Your task to perform on an android device: Search for hotels in Miami Image 0: 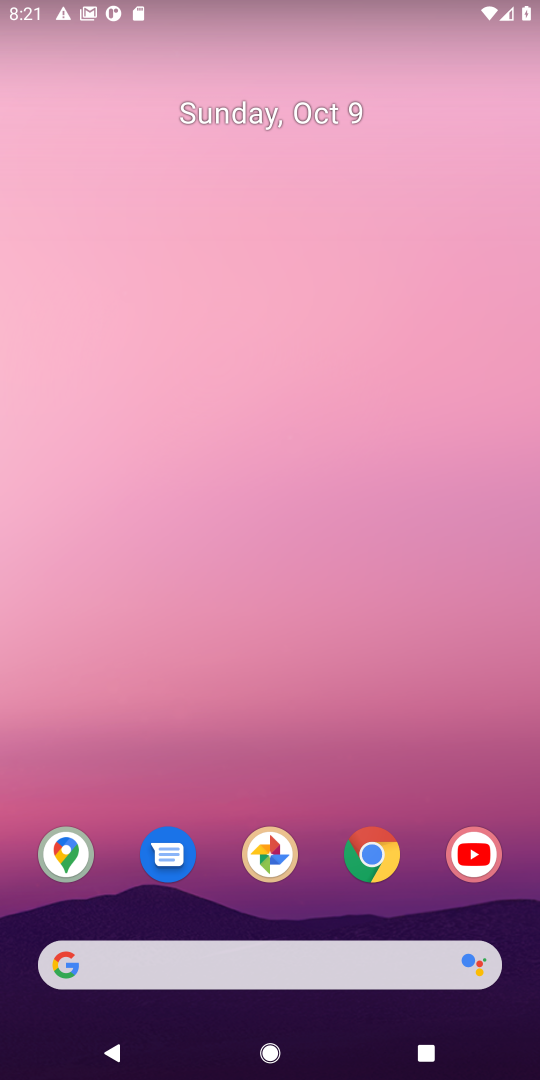
Step 0: drag from (317, 924) to (275, 57)
Your task to perform on an android device: Search for hotels in Miami Image 1: 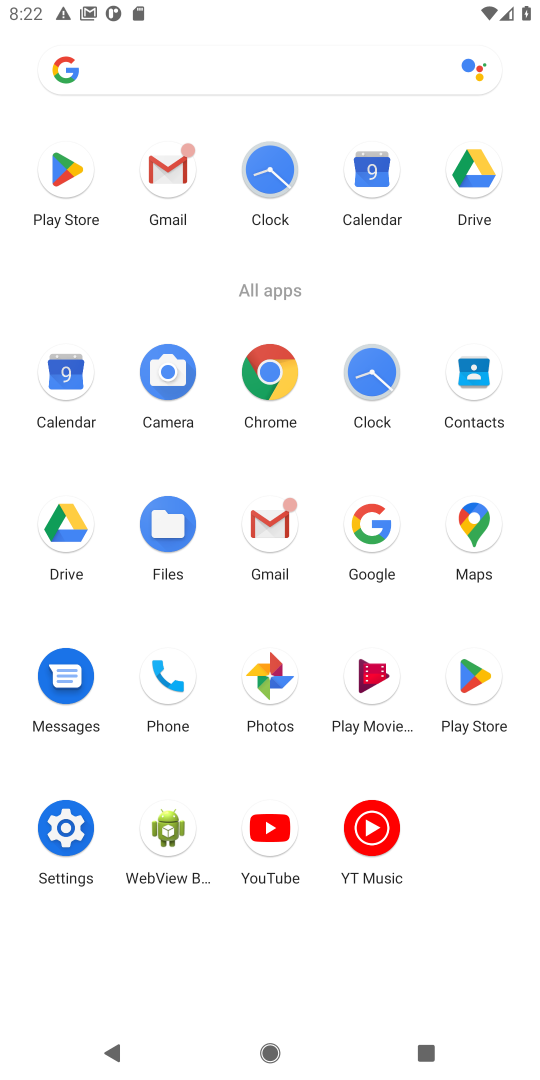
Step 1: click (367, 518)
Your task to perform on an android device: Search for hotels in Miami Image 2: 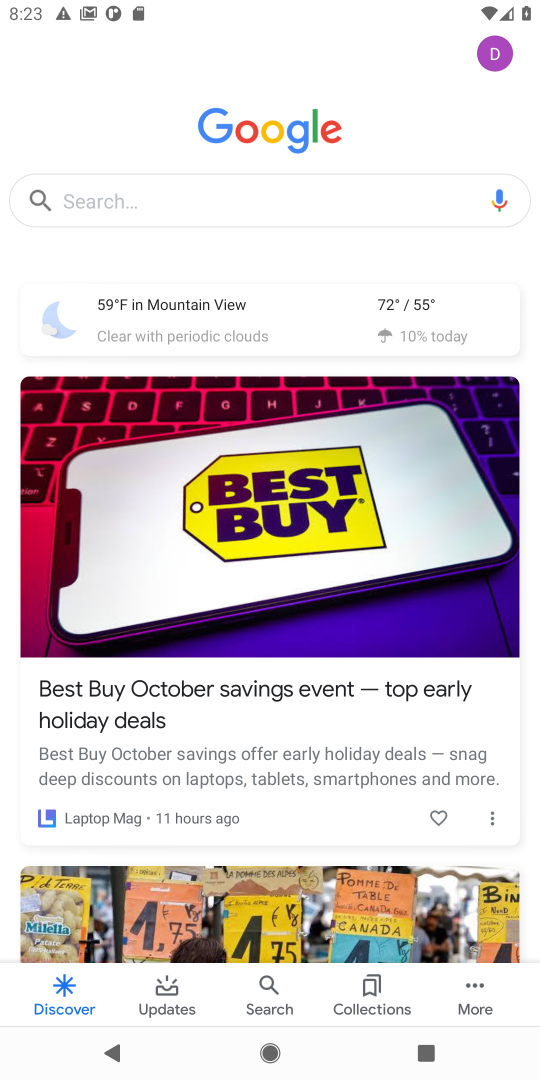
Step 2: click (245, 208)
Your task to perform on an android device: Search for hotels in Miami Image 3: 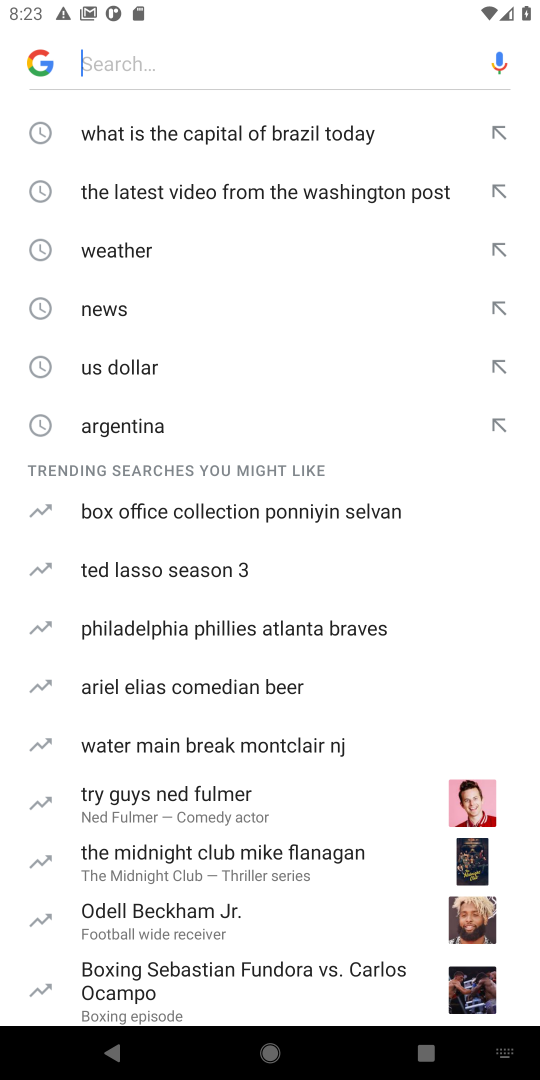
Step 3: type "hotels in Miami"
Your task to perform on an android device: Search for hotels in Miami Image 4: 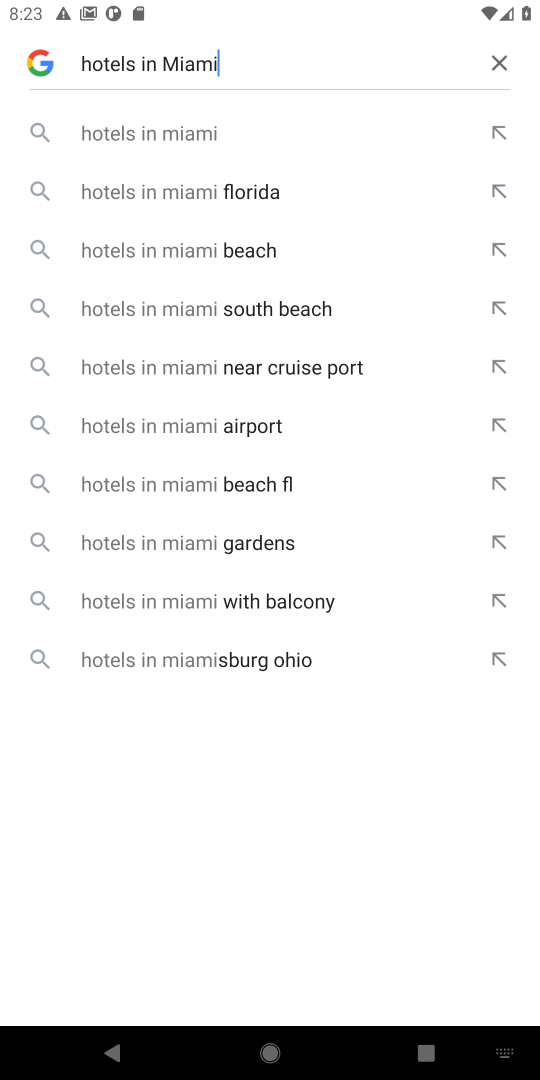
Step 4: type ""
Your task to perform on an android device: Search for hotels in Miami Image 5: 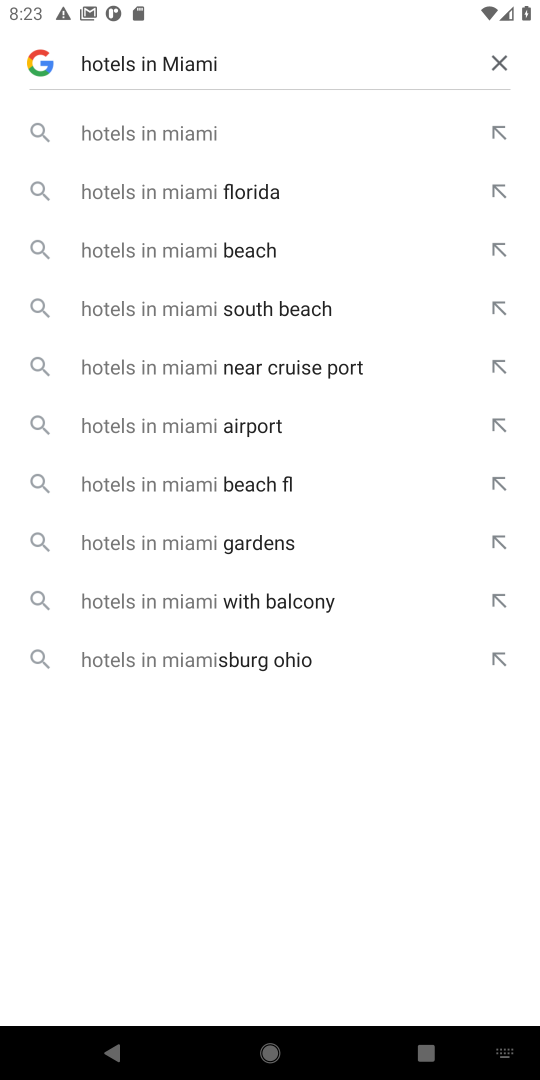
Step 5: click (179, 139)
Your task to perform on an android device: Search for hotels in Miami Image 6: 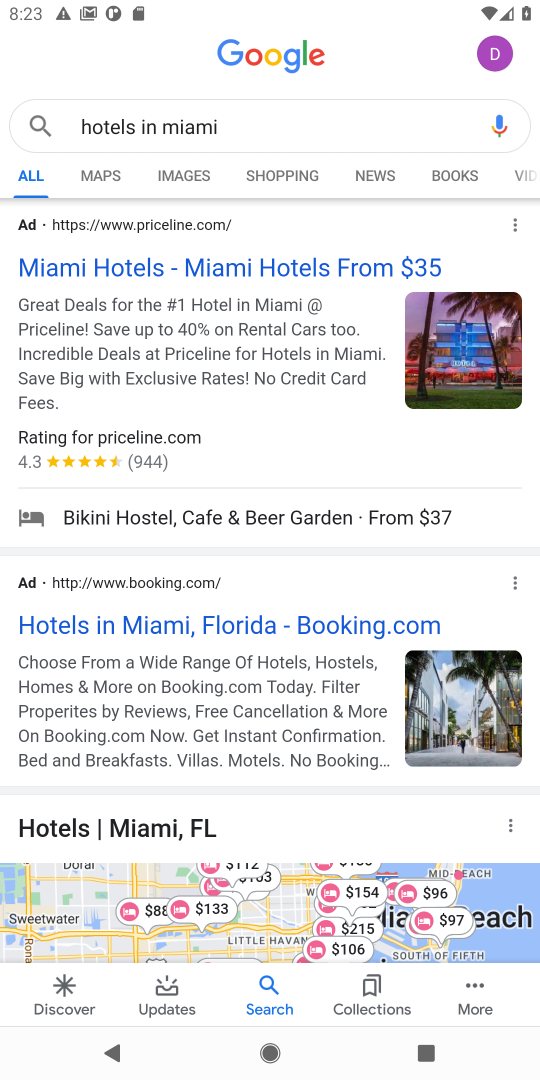
Step 6: click (322, 261)
Your task to perform on an android device: Search for hotels in Miami Image 7: 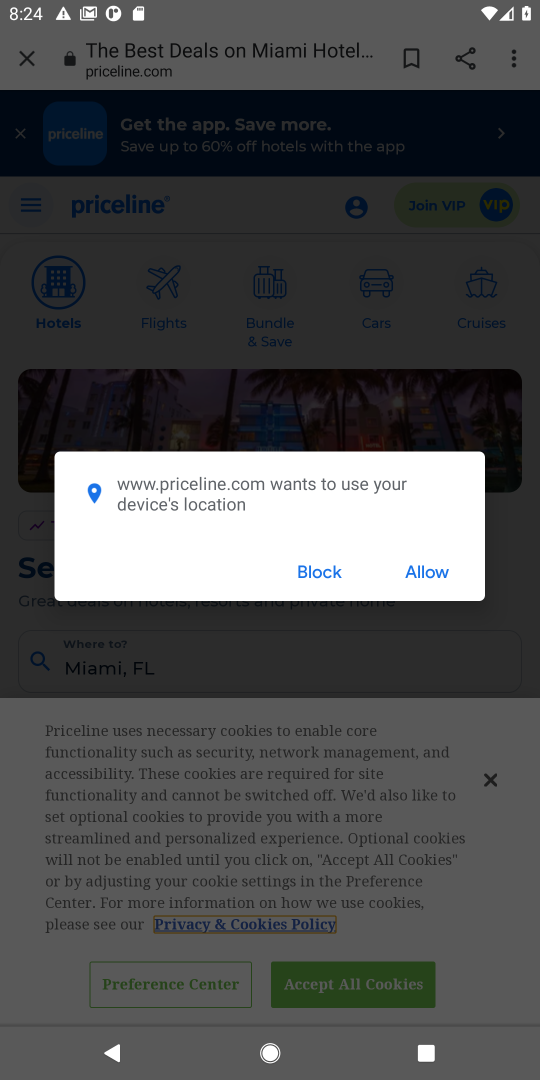
Step 7: click (323, 562)
Your task to perform on an android device: Search for hotels in Miami Image 8: 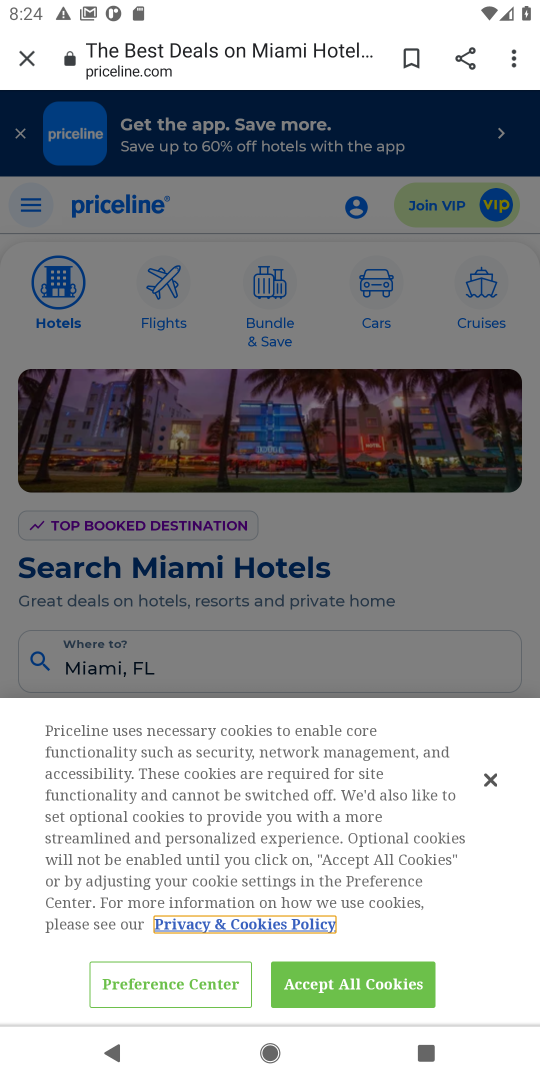
Step 8: click (488, 771)
Your task to perform on an android device: Search for hotels in Miami Image 9: 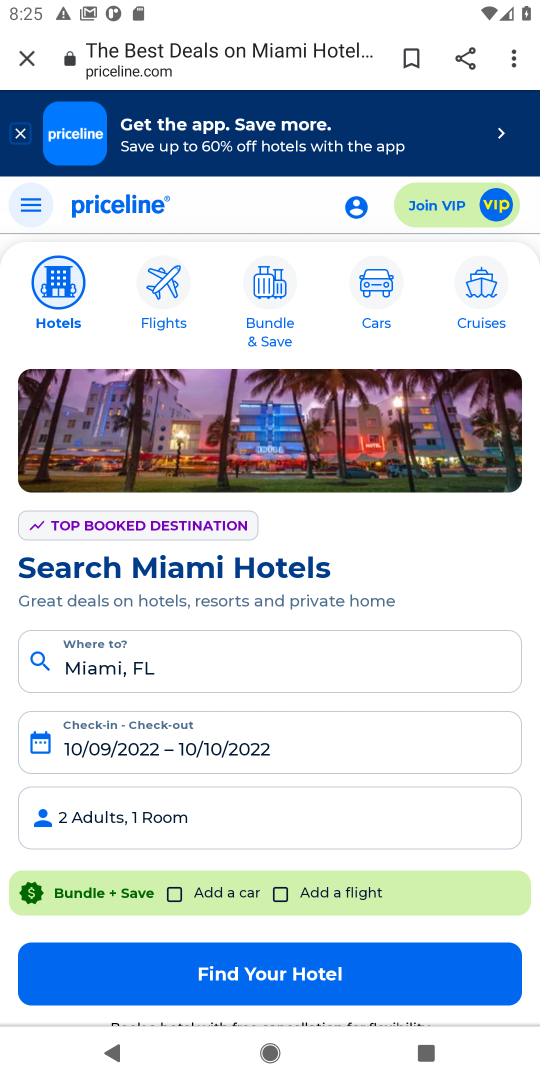
Step 9: task complete